Your task to perform on an android device: Open calendar and show me the fourth week of next month Image 0: 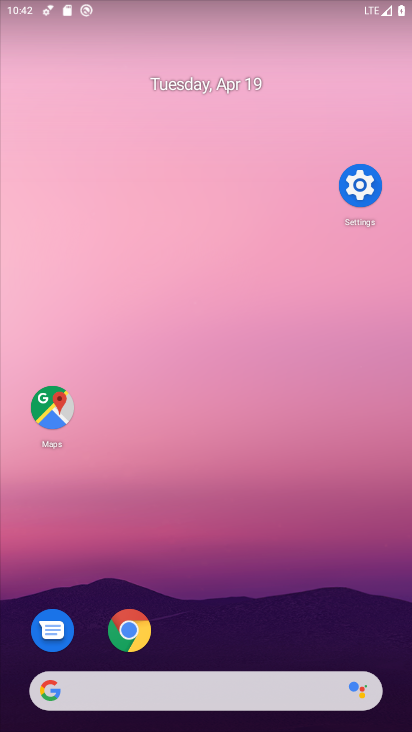
Step 0: drag from (329, 123) to (341, 64)
Your task to perform on an android device: Open calendar and show me the fourth week of next month Image 1: 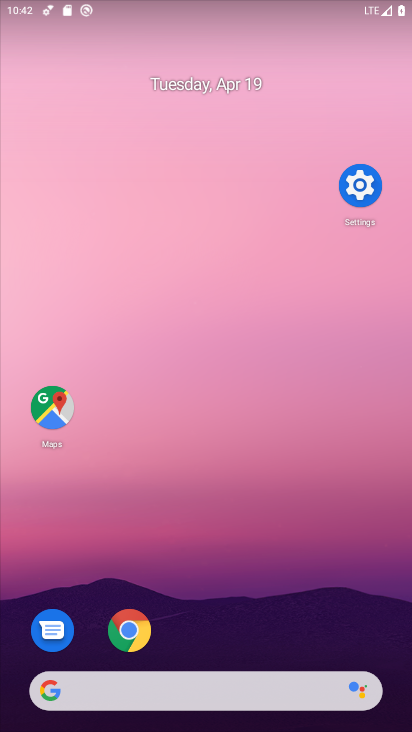
Step 1: drag from (258, 528) to (321, 126)
Your task to perform on an android device: Open calendar and show me the fourth week of next month Image 2: 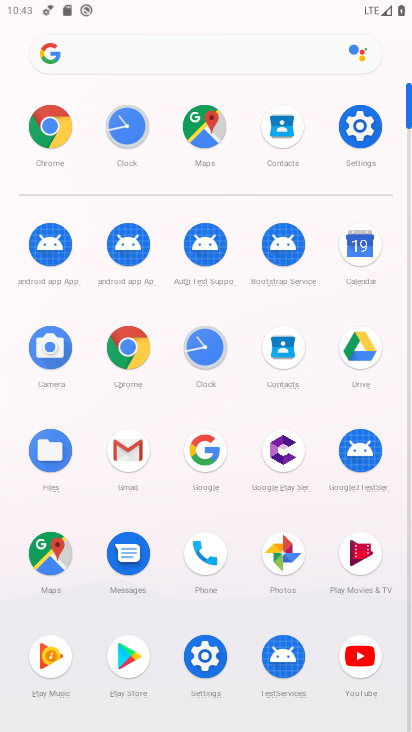
Step 2: click (350, 248)
Your task to perform on an android device: Open calendar and show me the fourth week of next month Image 3: 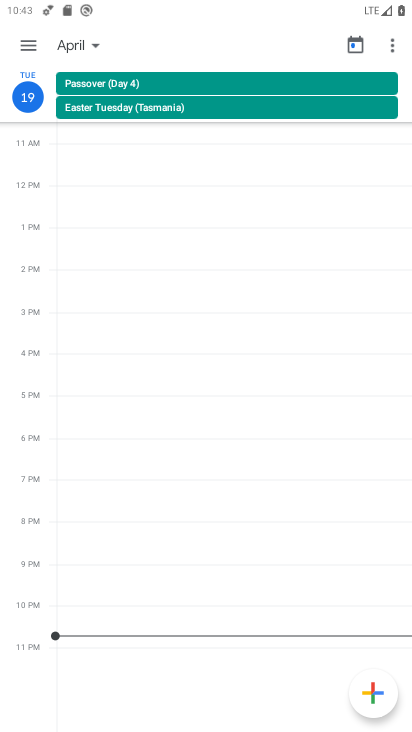
Step 3: click (80, 43)
Your task to perform on an android device: Open calendar and show me the fourth week of next month Image 4: 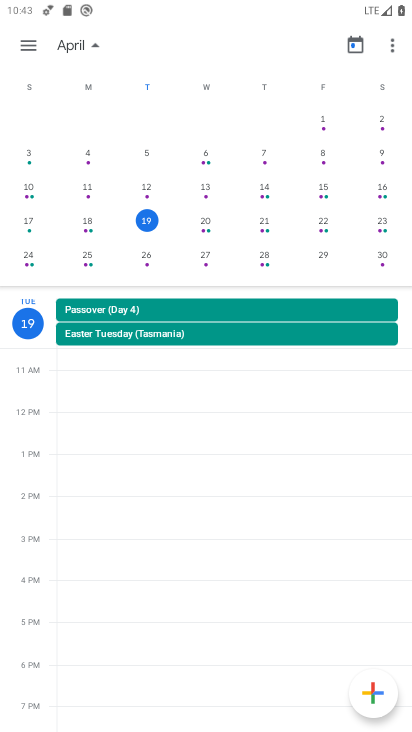
Step 4: drag from (355, 212) to (8, 170)
Your task to perform on an android device: Open calendar and show me the fourth week of next month Image 5: 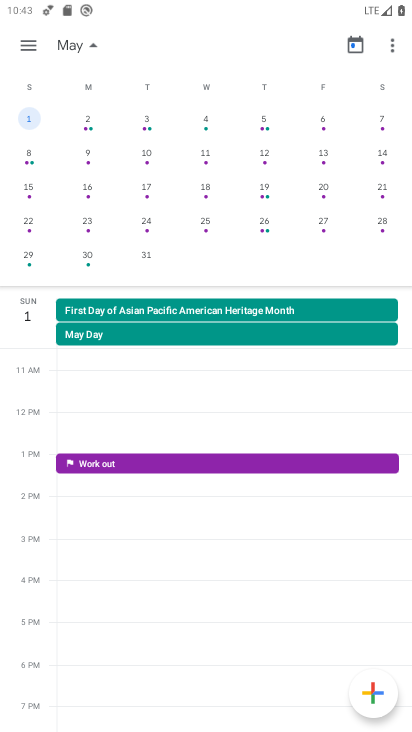
Step 5: click (31, 227)
Your task to perform on an android device: Open calendar and show me the fourth week of next month Image 6: 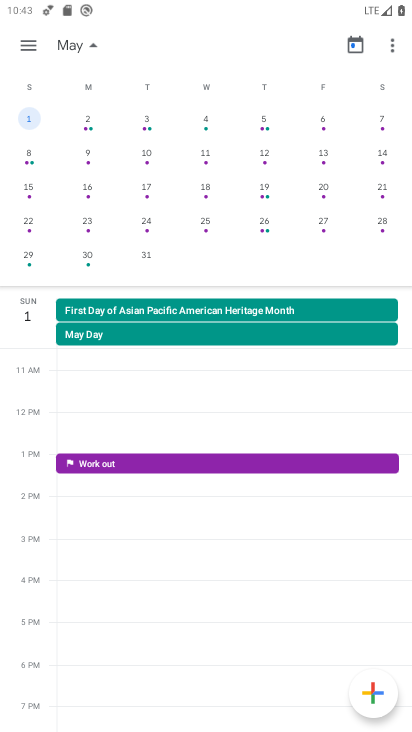
Step 6: click (31, 227)
Your task to perform on an android device: Open calendar and show me the fourth week of next month Image 7: 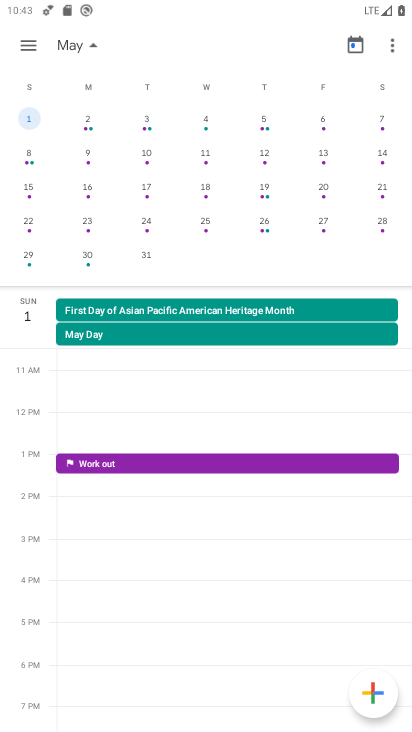
Step 7: click (34, 224)
Your task to perform on an android device: Open calendar and show me the fourth week of next month Image 8: 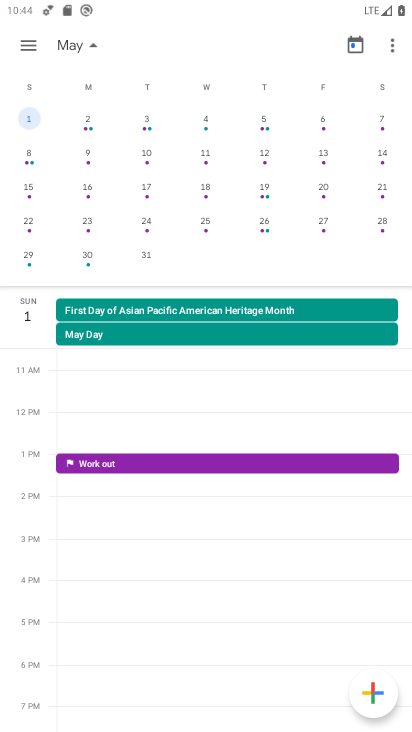
Step 8: click (19, 230)
Your task to perform on an android device: Open calendar and show me the fourth week of next month Image 9: 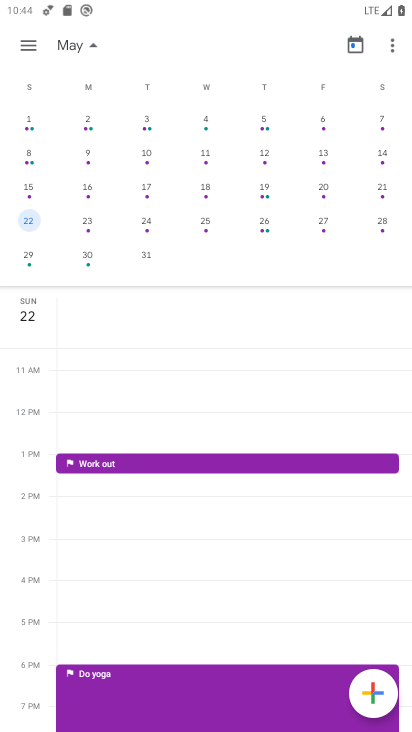
Step 9: task complete